Your task to perform on an android device: set an alarm Image 0: 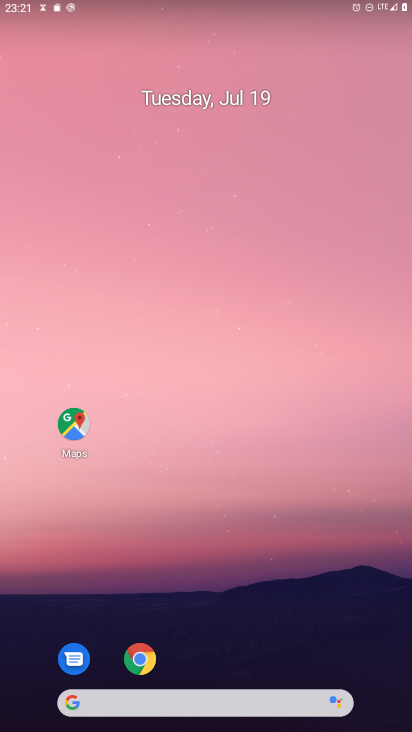
Step 0: drag from (232, 701) to (262, 270)
Your task to perform on an android device: set an alarm Image 1: 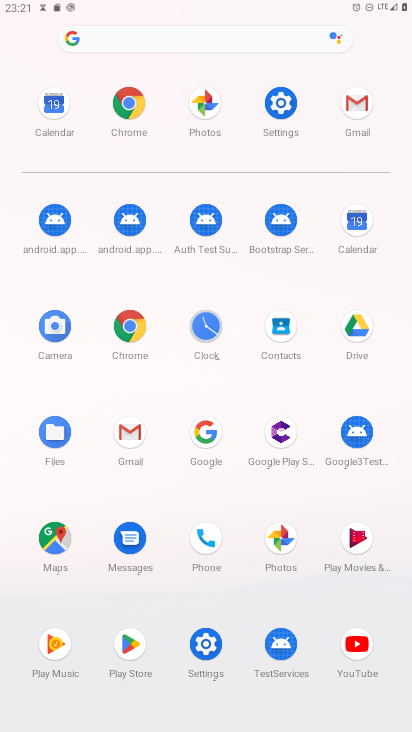
Step 1: click (219, 329)
Your task to perform on an android device: set an alarm Image 2: 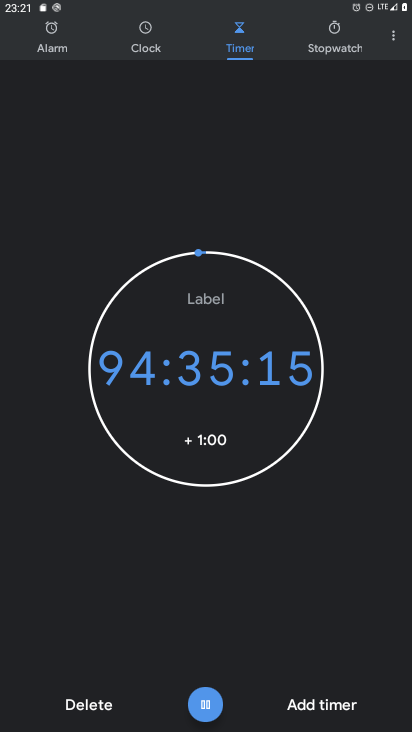
Step 2: click (68, 45)
Your task to perform on an android device: set an alarm Image 3: 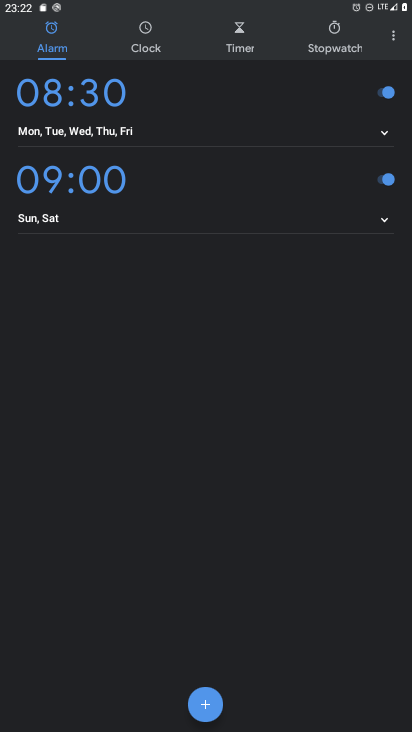
Step 3: task complete